Your task to perform on an android device: Open notification settings Image 0: 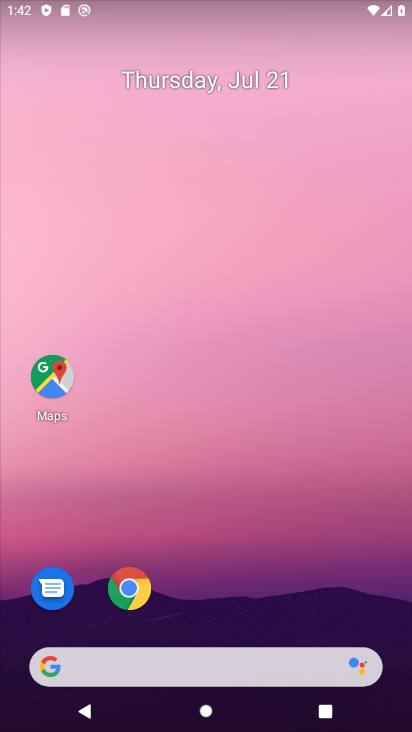
Step 0: drag from (169, 631) to (201, 271)
Your task to perform on an android device: Open notification settings Image 1: 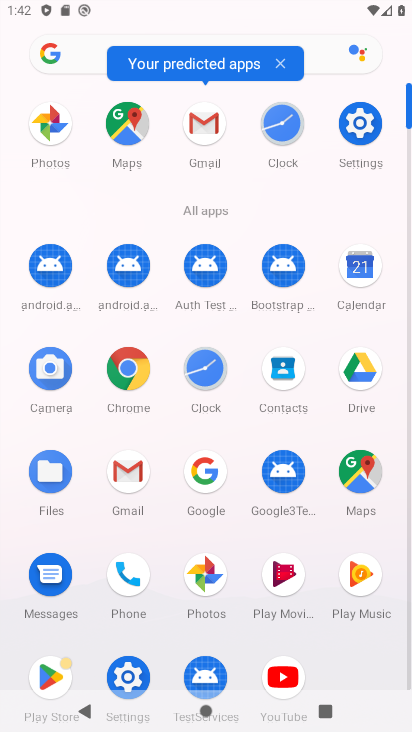
Step 1: click (135, 671)
Your task to perform on an android device: Open notification settings Image 2: 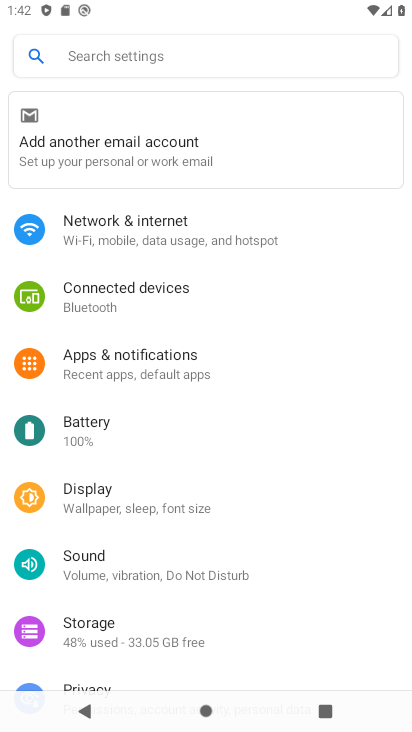
Step 2: click (137, 362)
Your task to perform on an android device: Open notification settings Image 3: 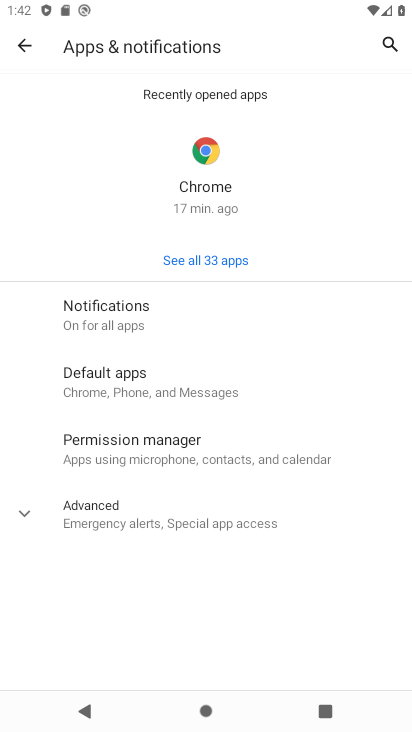
Step 3: drag from (85, 577) to (244, 282)
Your task to perform on an android device: Open notification settings Image 4: 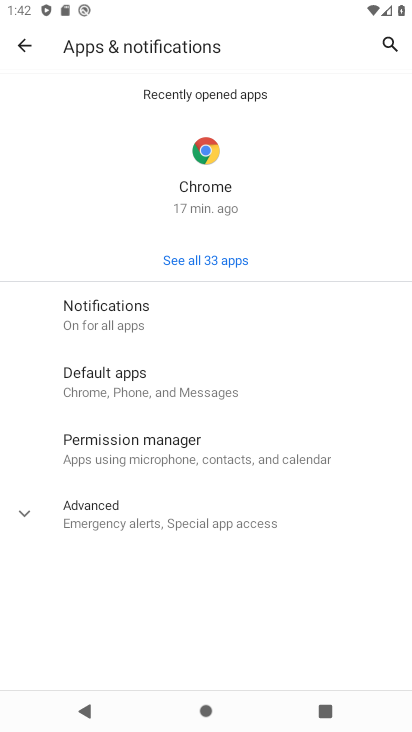
Step 4: click (183, 313)
Your task to perform on an android device: Open notification settings Image 5: 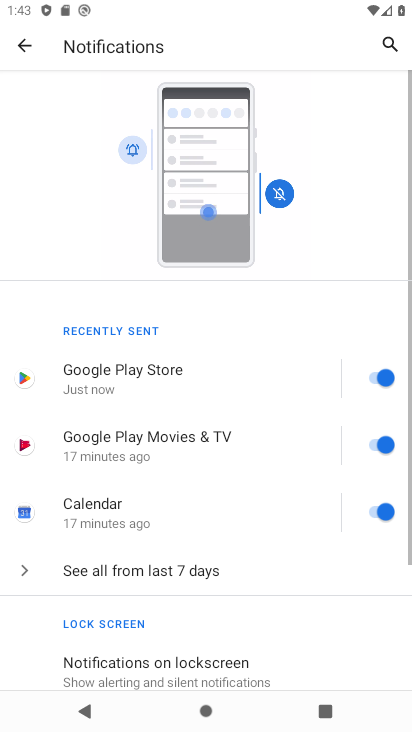
Step 5: drag from (213, 617) to (279, 260)
Your task to perform on an android device: Open notification settings Image 6: 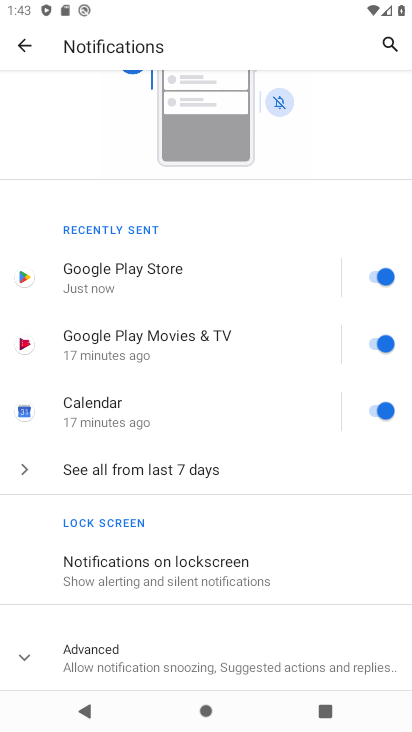
Step 6: click (144, 664)
Your task to perform on an android device: Open notification settings Image 7: 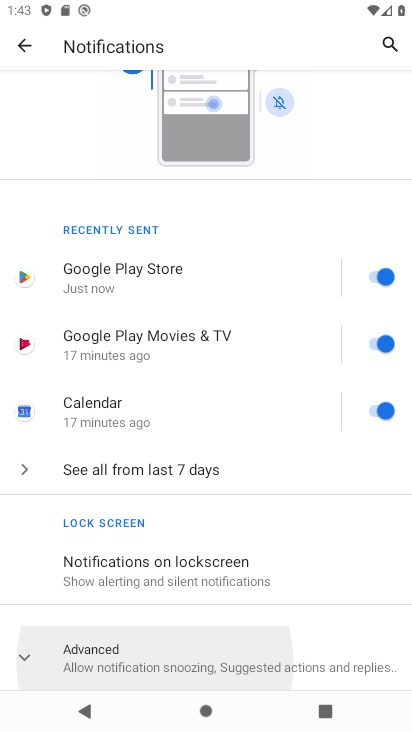
Step 7: click (292, 234)
Your task to perform on an android device: Open notification settings Image 8: 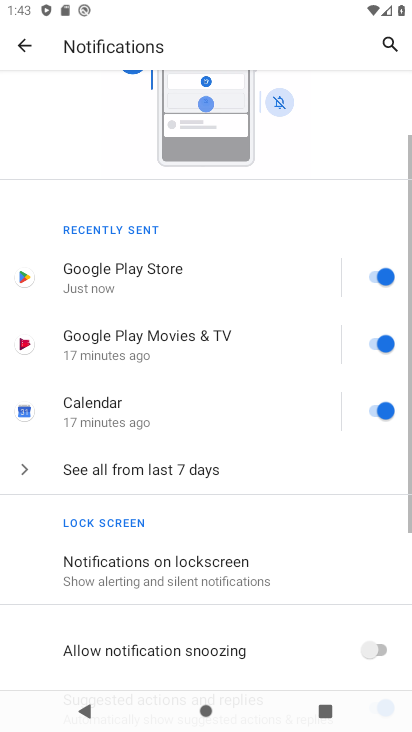
Step 8: task complete